Your task to perform on an android device: turn off improve location accuracy Image 0: 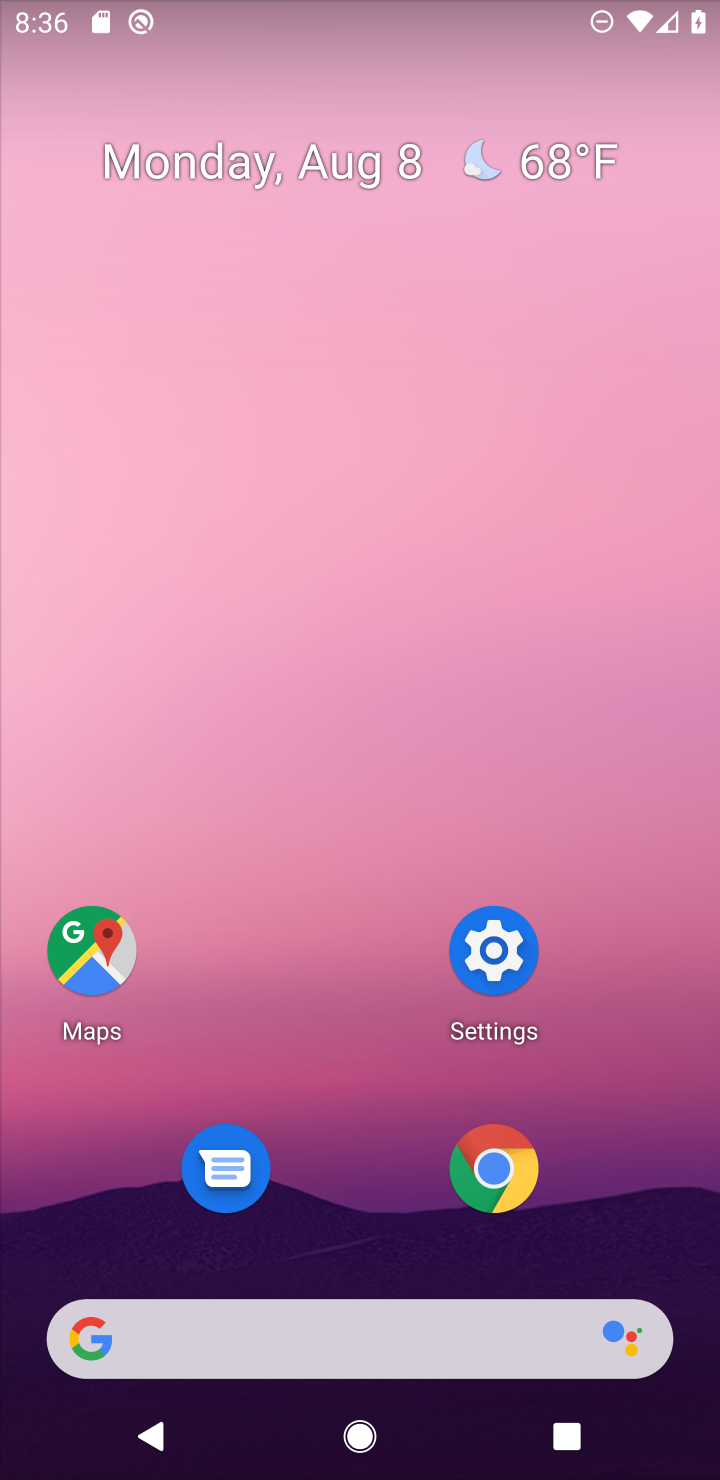
Step 0: press home button
Your task to perform on an android device: turn off improve location accuracy Image 1: 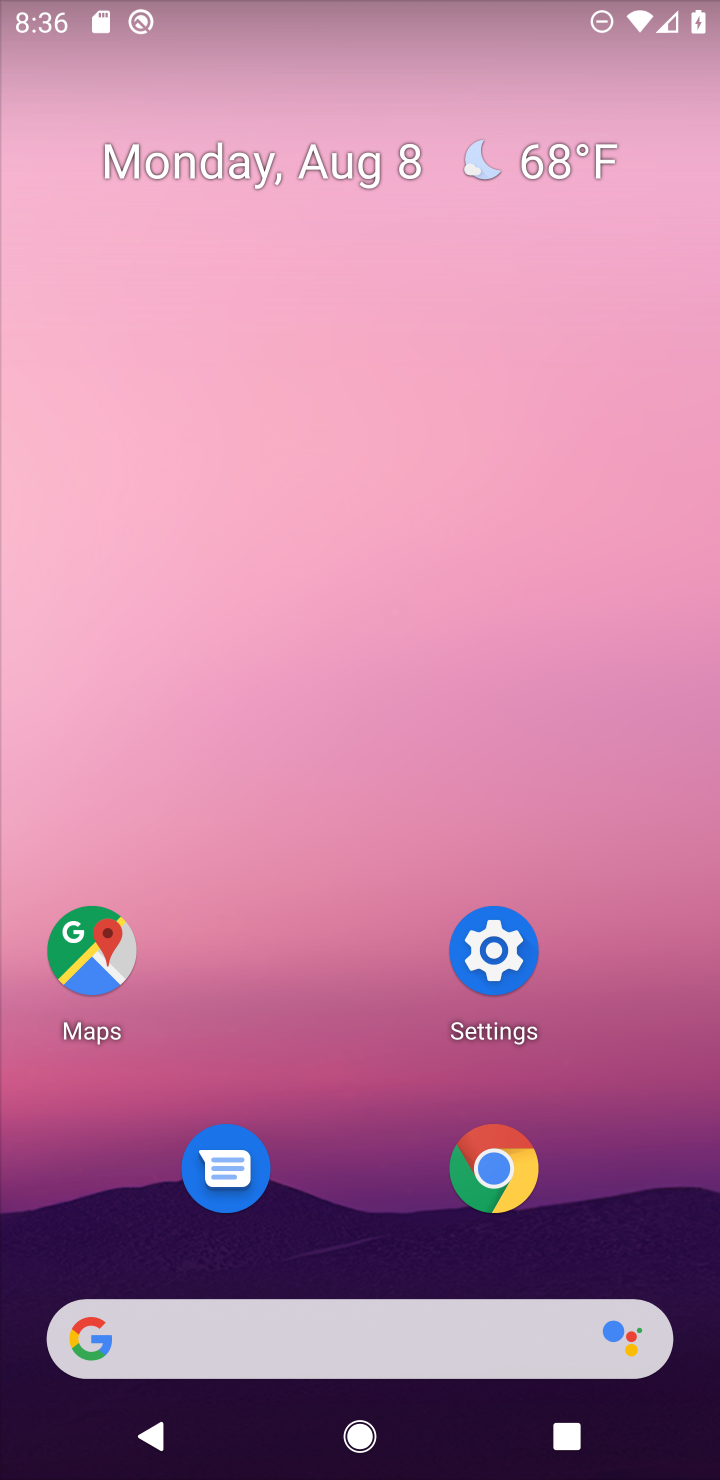
Step 1: click (500, 957)
Your task to perform on an android device: turn off improve location accuracy Image 2: 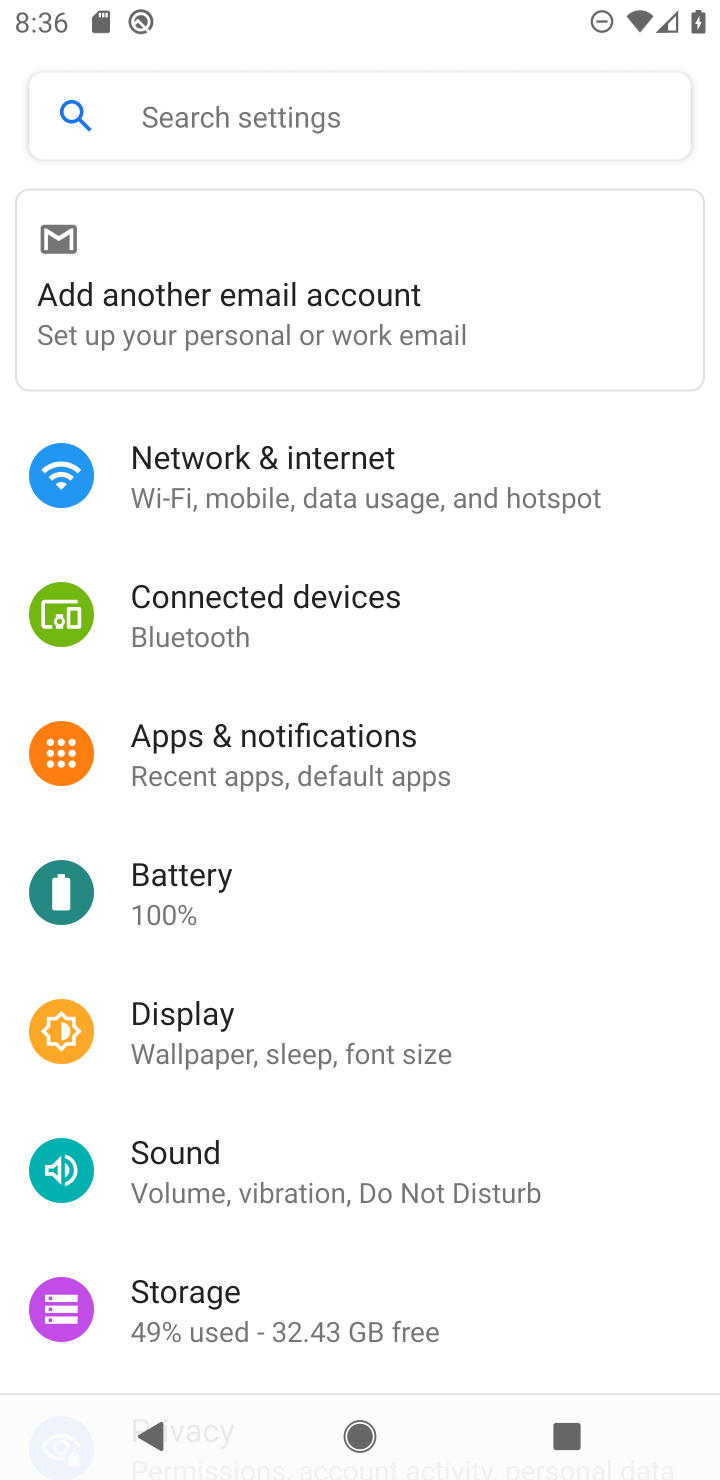
Step 2: drag from (411, 1252) to (698, 292)
Your task to perform on an android device: turn off improve location accuracy Image 3: 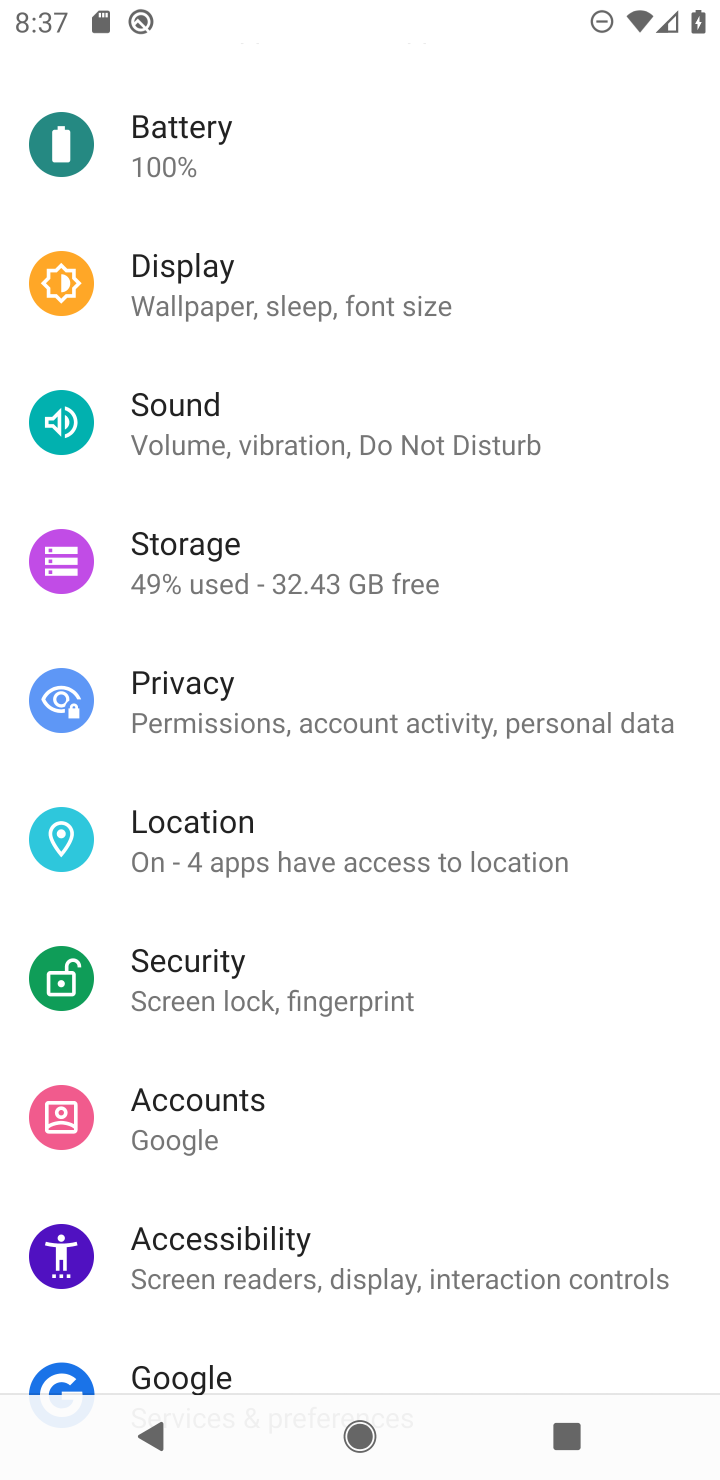
Step 3: click (242, 830)
Your task to perform on an android device: turn off improve location accuracy Image 4: 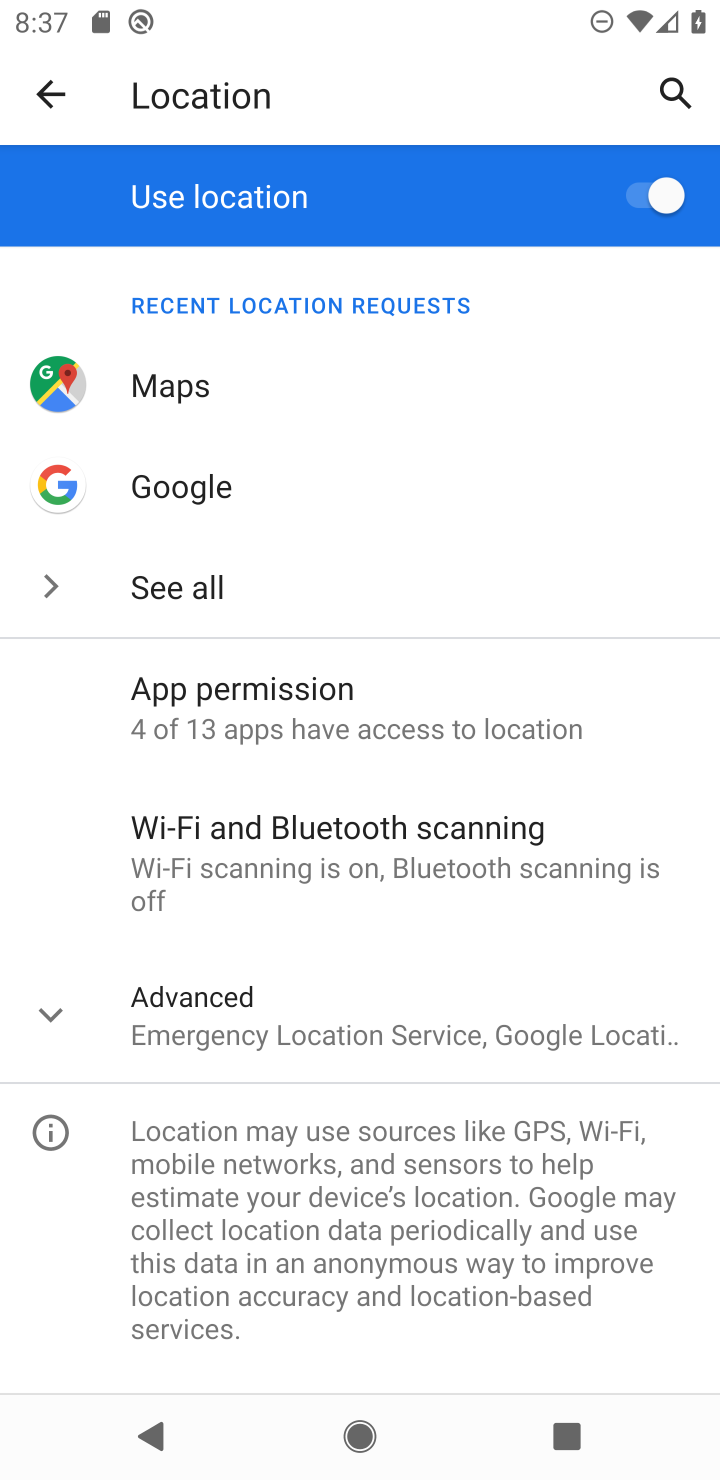
Step 4: click (216, 1020)
Your task to perform on an android device: turn off improve location accuracy Image 5: 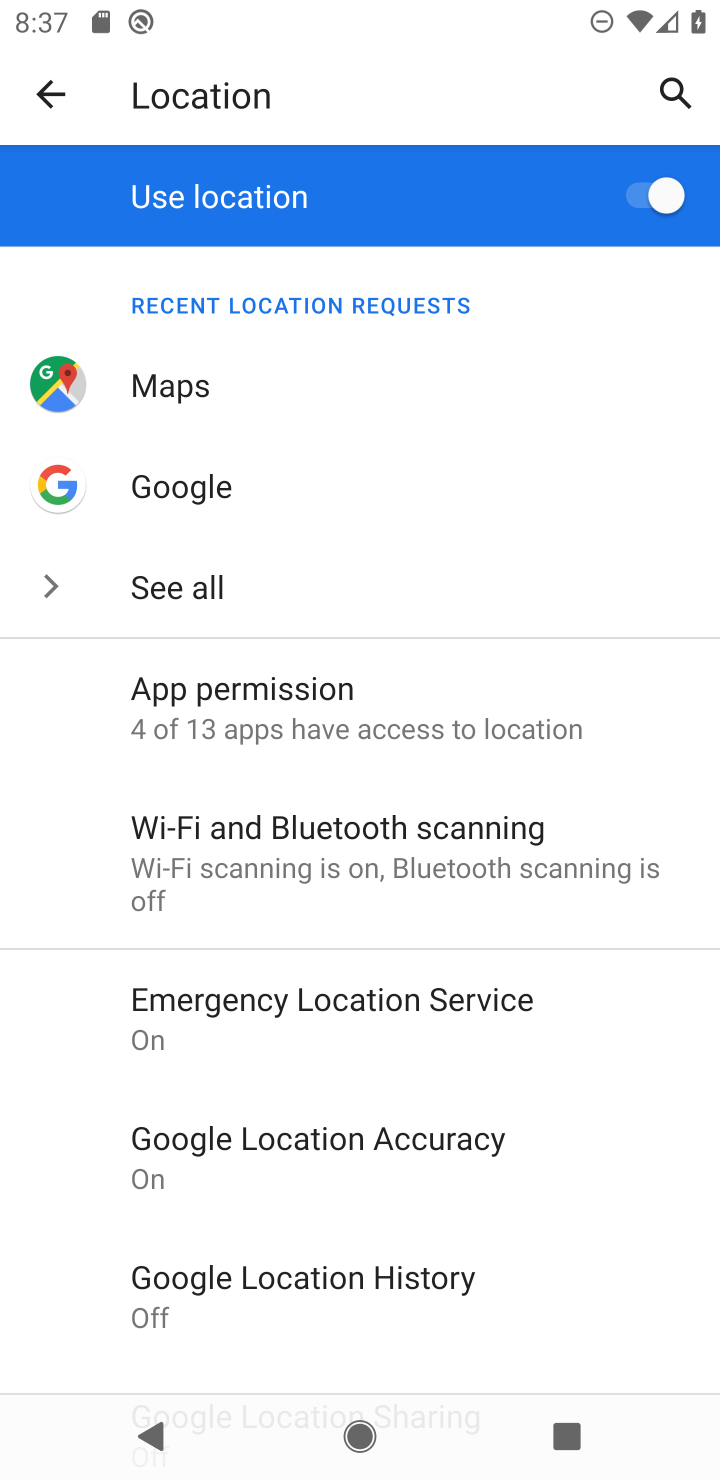
Step 5: drag from (573, 1073) to (611, 492)
Your task to perform on an android device: turn off improve location accuracy Image 6: 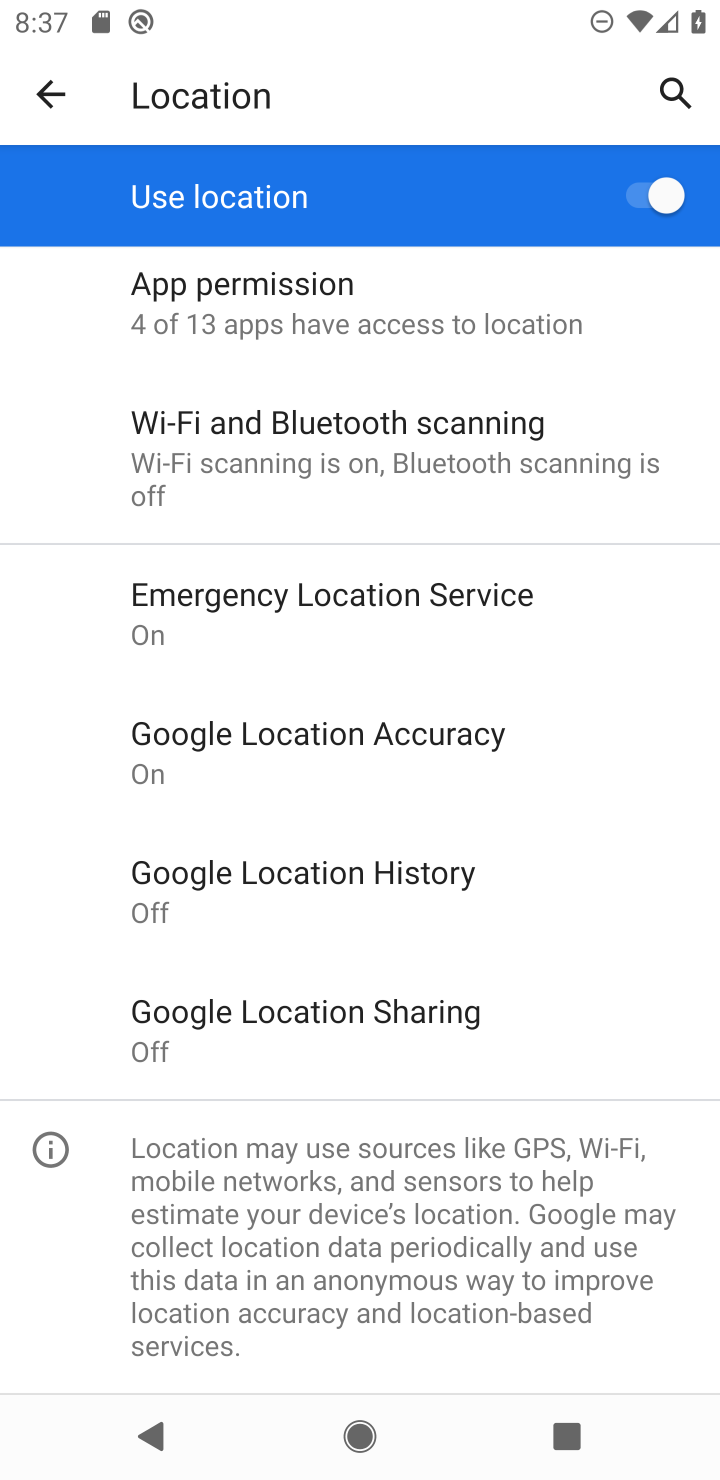
Step 6: click (404, 849)
Your task to perform on an android device: turn off improve location accuracy Image 7: 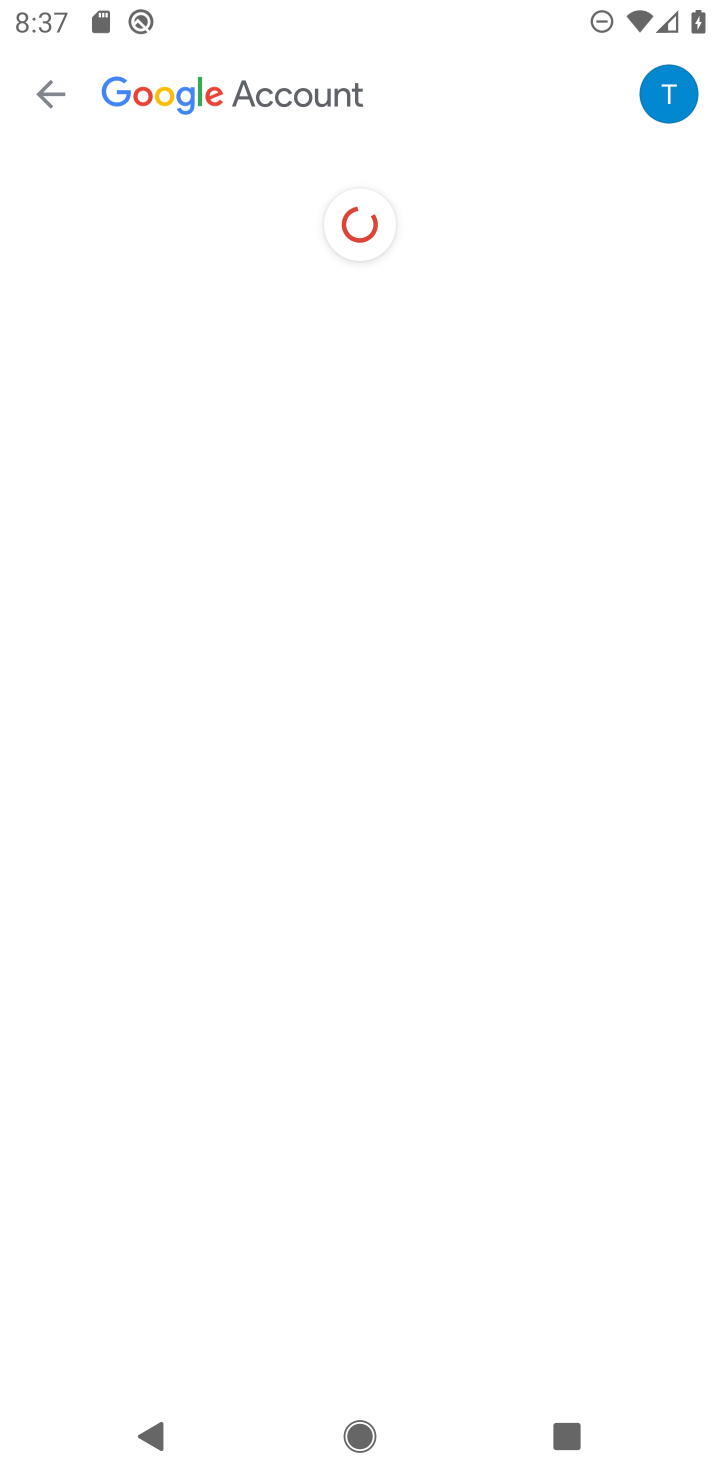
Step 7: task complete